Your task to perform on an android device: turn on the 12-hour format for clock Image 0: 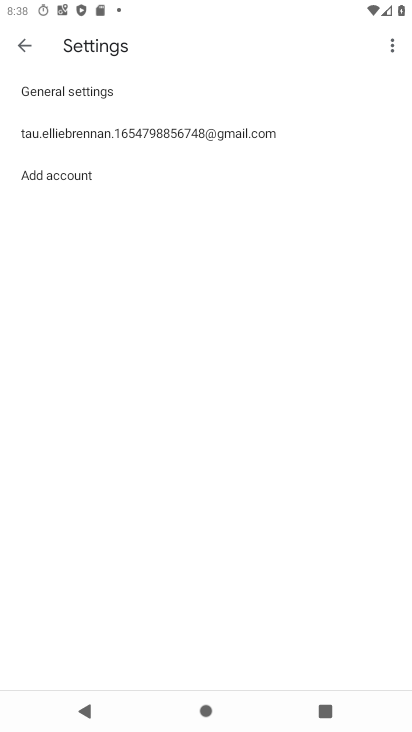
Step 0: press home button
Your task to perform on an android device: turn on the 12-hour format for clock Image 1: 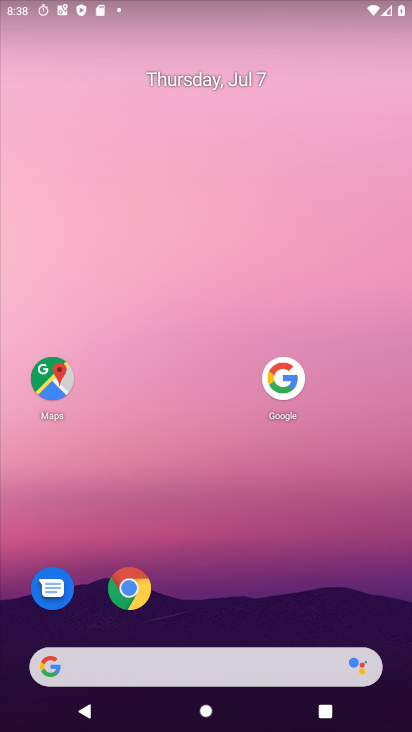
Step 1: drag from (184, 656) to (345, 207)
Your task to perform on an android device: turn on the 12-hour format for clock Image 2: 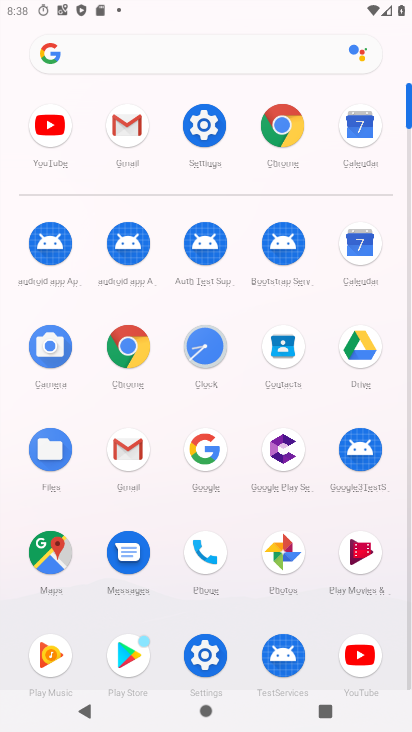
Step 2: click (203, 349)
Your task to perform on an android device: turn on the 12-hour format for clock Image 3: 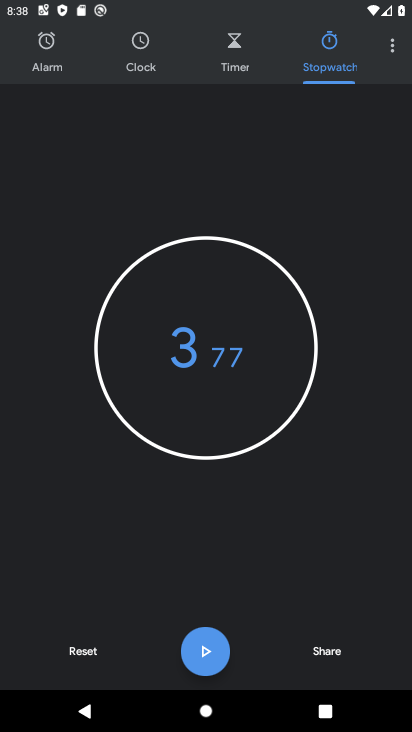
Step 3: click (394, 52)
Your task to perform on an android device: turn on the 12-hour format for clock Image 4: 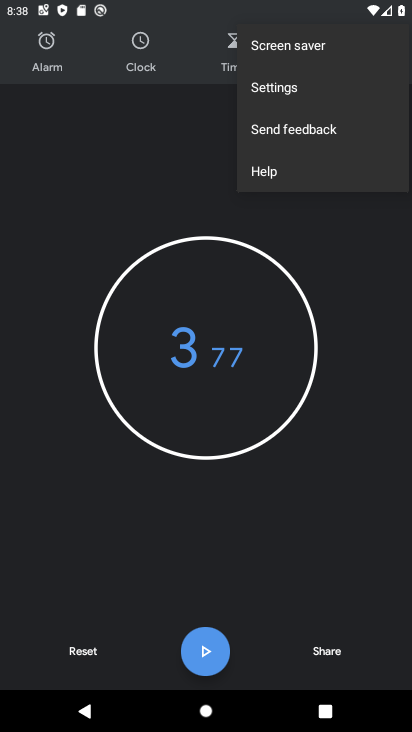
Step 4: click (296, 88)
Your task to perform on an android device: turn on the 12-hour format for clock Image 5: 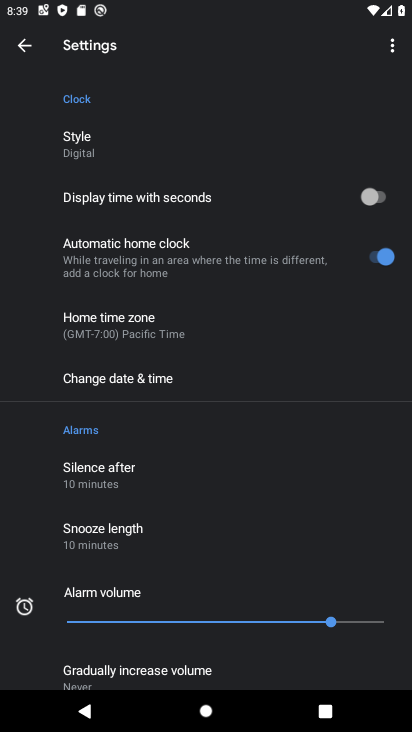
Step 5: click (151, 380)
Your task to perform on an android device: turn on the 12-hour format for clock Image 6: 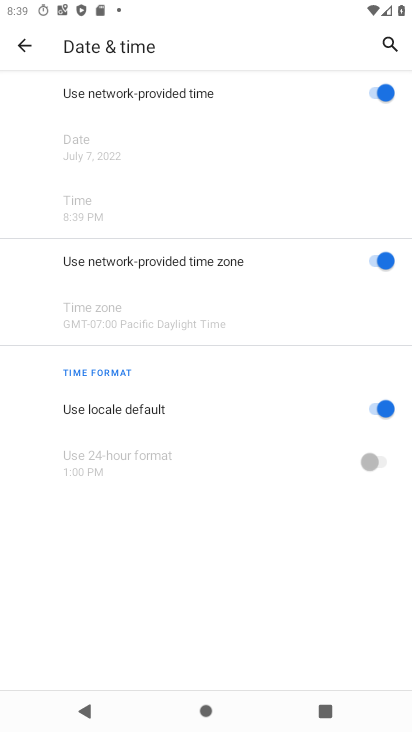
Step 6: task complete